Your task to perform on an android device: Show me the alarms in the clock app Image 0: 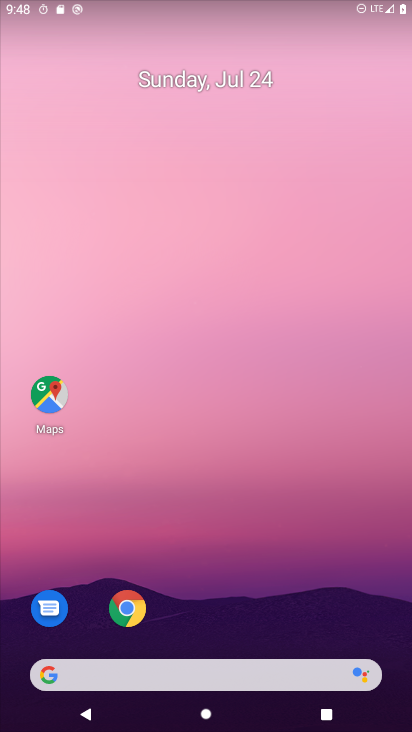
Step 0: click (197, 140)
Your task to perform on an android device: Show me the alarms in the clock app Image 1: 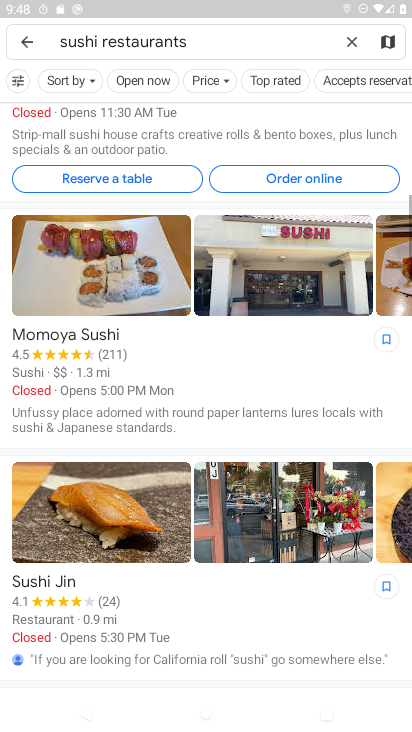
Step 1: press home button
Your task to perform on an android device: Show me the alarms in the clock app Image 2: 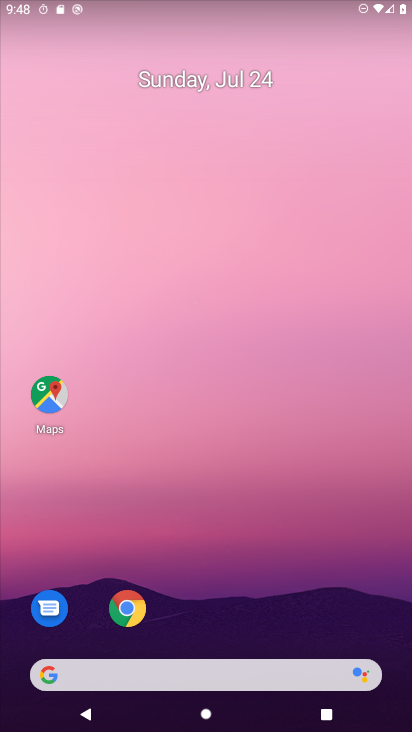
Step 2: drag from (166, 595) to (168, 136)
Your task to perform on an android device: Show me the alarms in the clock app Image 3: 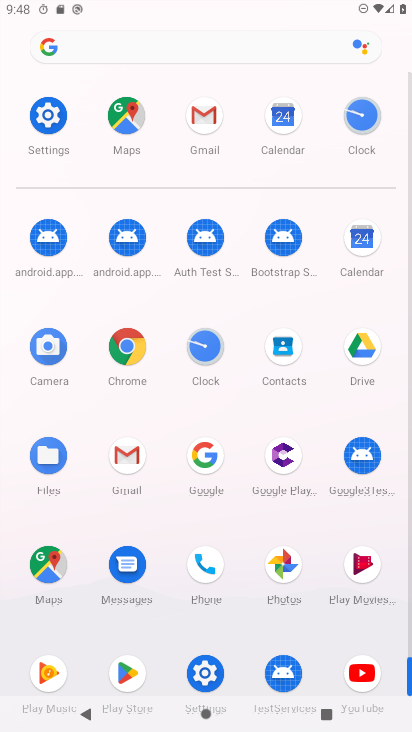
Step 3: click (204, 347)
Your task to perform on an android device: Show me the alarms in the clock app Image 4: 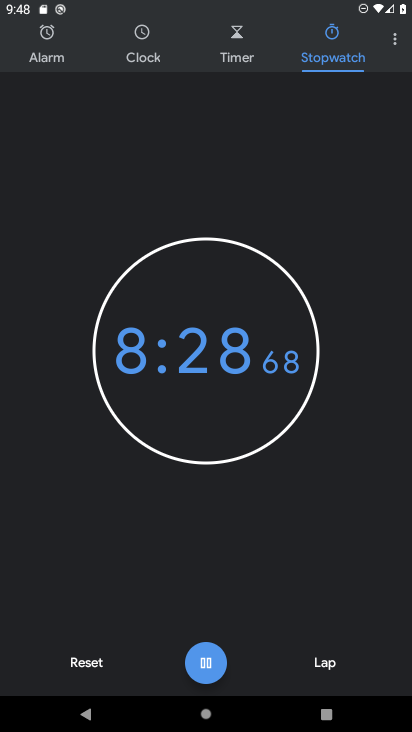
Step 4: drag from (203, 636) to (277, 364)
Your task to perform on an android device: Show me the alarms in the clock app Image 5: 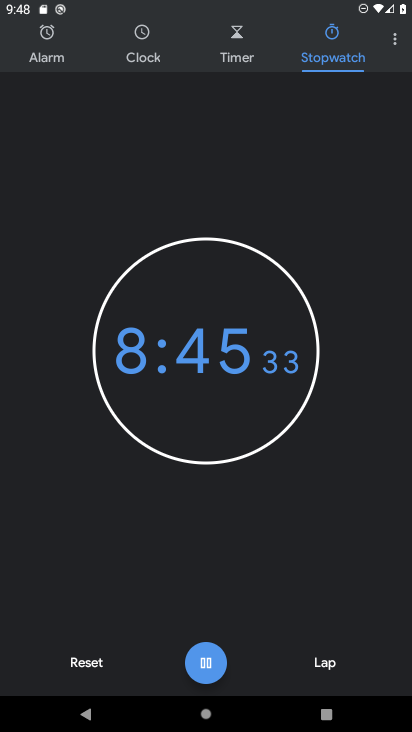
Step 5: drag from (262, 415) to (261, 326)
Your task to perform on an android device: Show me the alarms in the clock app Image 6: 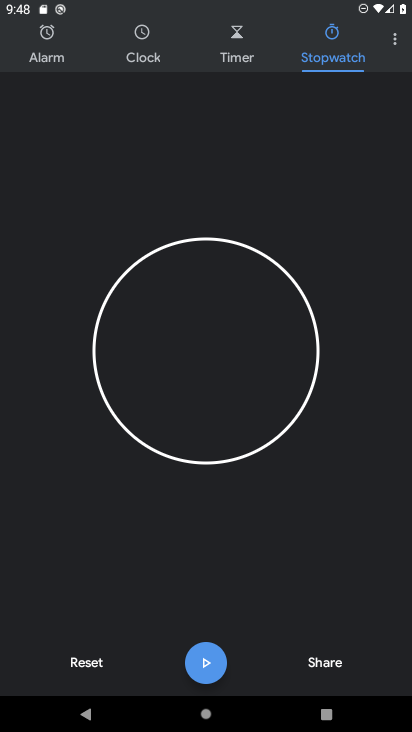
Step 6: click (390, 44)
Your task to perform on an android device: Show me the alarms in the clock app Image 7: 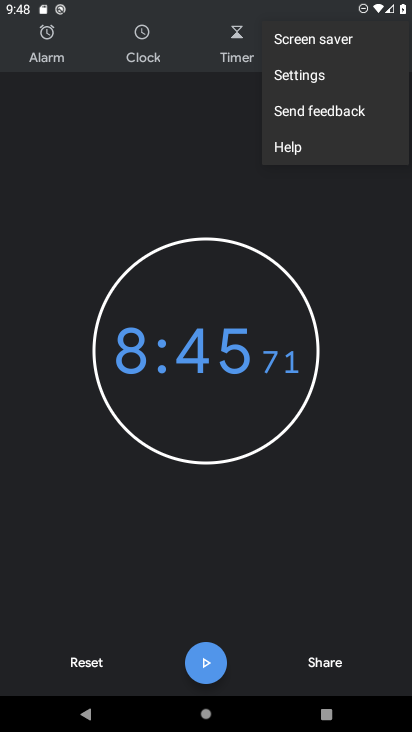
Step 7: click (133, 113)
Your task to perform on an android device: Show me the alarms in the clock app Image 8: 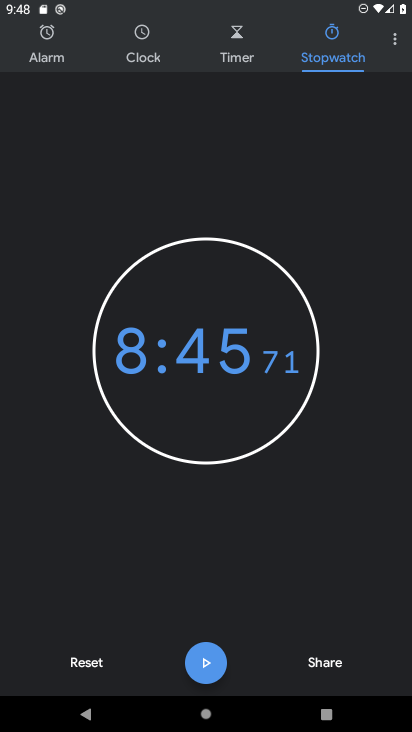
Step 8: click (48, 40)
Your task to perform on an android device: Show me the alarms in the clock app Image 9: 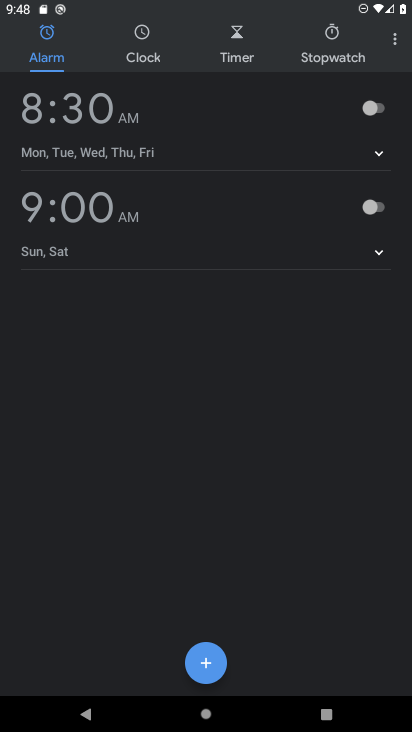
Step 9: task complete